Your task to perform on an android device: When is my next meeting? Image 0: 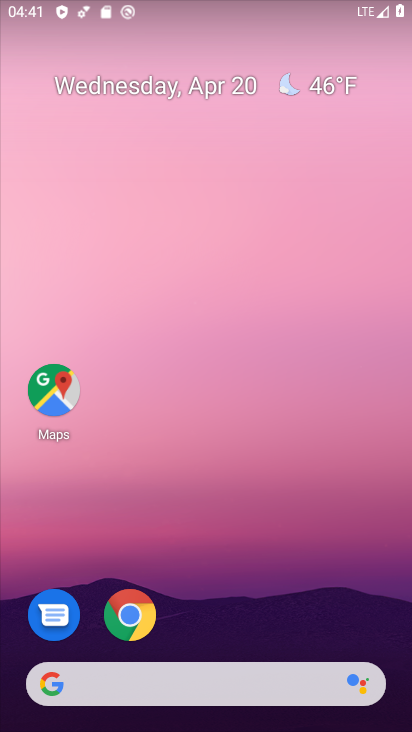
Step 0: drag from (247, 528) to (321, 69)
Your task to perform on an android device: When is my next meeting? Image 1: 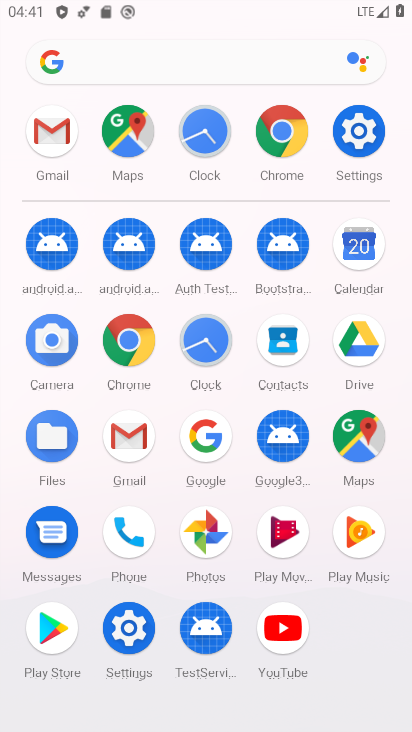
Step 1: click (356, 256)
Your task to perform on an android device: When is my next meeting? Image 2: 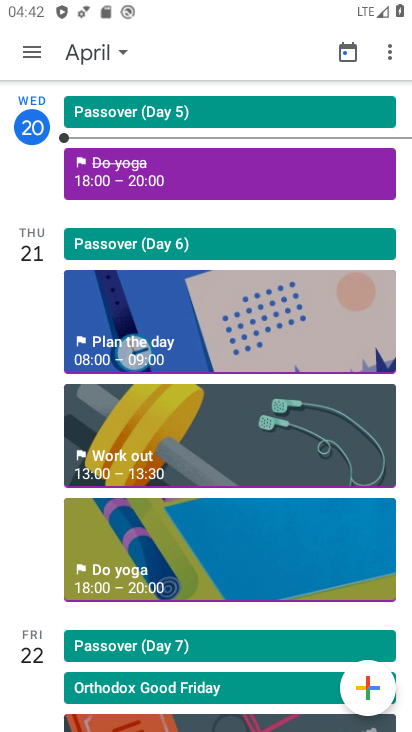
Step 2: task complete